Your task to perform on an android device: remove spam from my inbox in the gmail app Image 0: 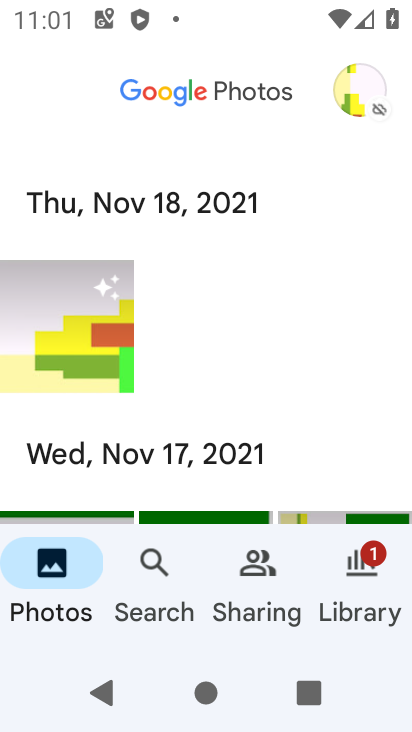
Step 0: press home button
Your task to perform on an android device: remove spam from my inbox in the gmail app Image 1: 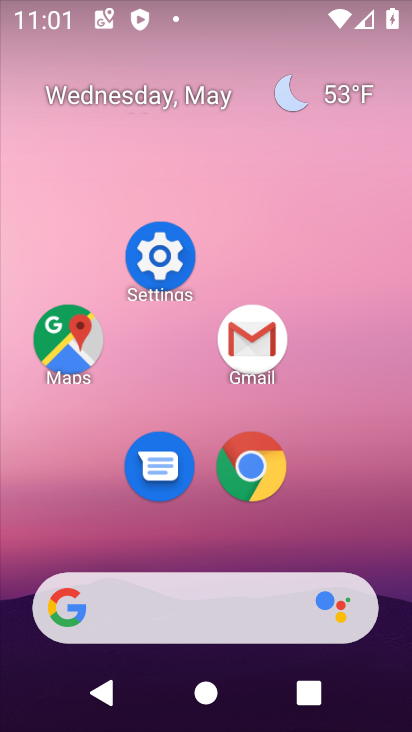
Step 1: drag from (219, 550) to (282, 272)
Your task to perform on an android device: remove spam from my inbox in the gmail app Image 2: 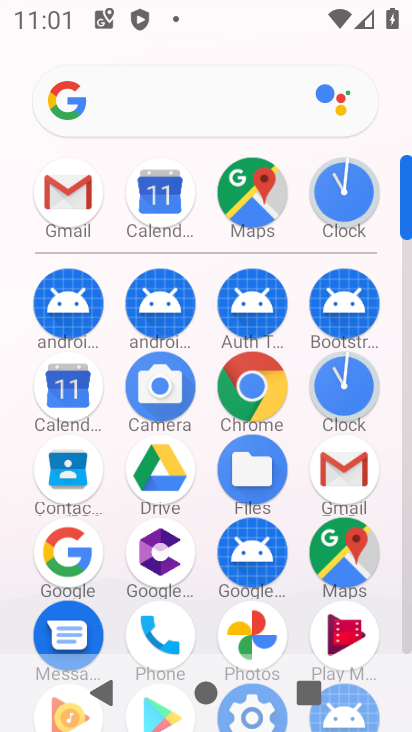
Step 2: click (340, 484)
Your task to perform on an android device: remove spam from my inbox in the gmail app Image 3: 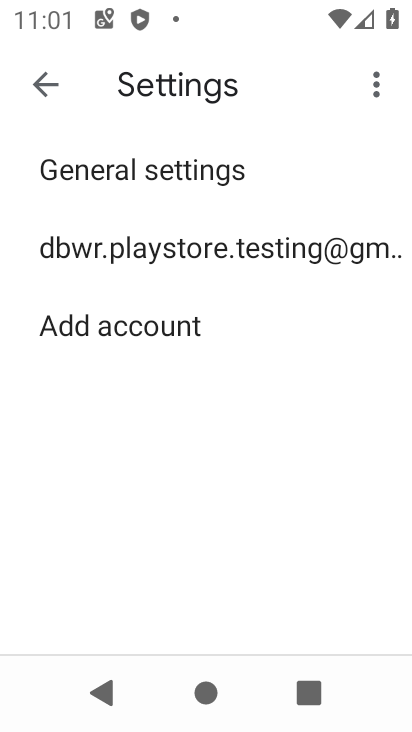
Step 3: click (47, 92)
Your task to perform on an android device: remove spam from my inbox in the gmail app Image 4: 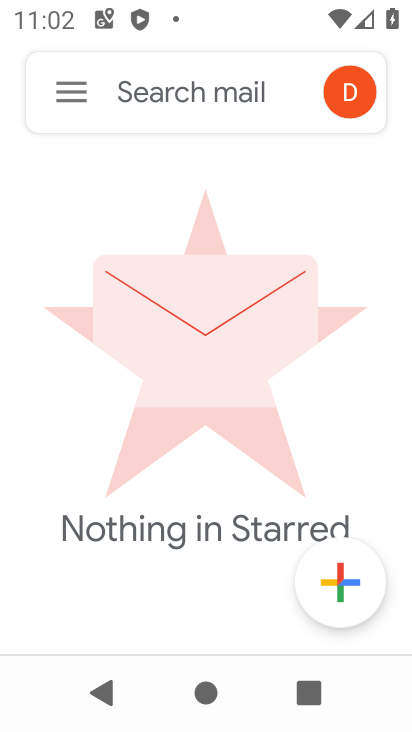
Step 4: click (79, 105)
Your task to perform on an android device: remove spam from my inbox in the gmail app Image 5: 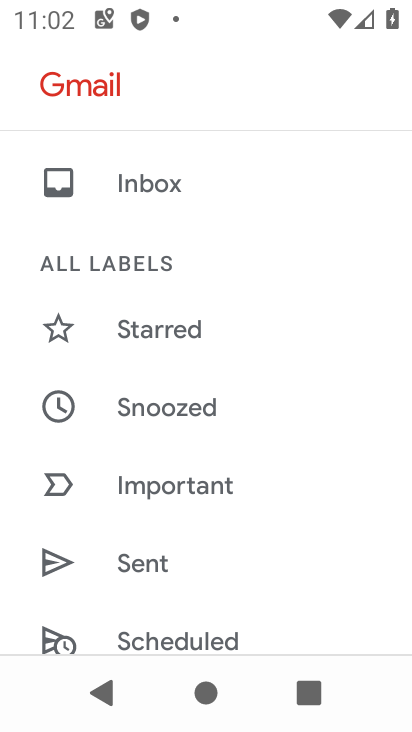
Step 5: drag from (209, 567) to (258, 153)
Your task to perform on an android device: remove spam from my inbox in the gmail app Image 6: 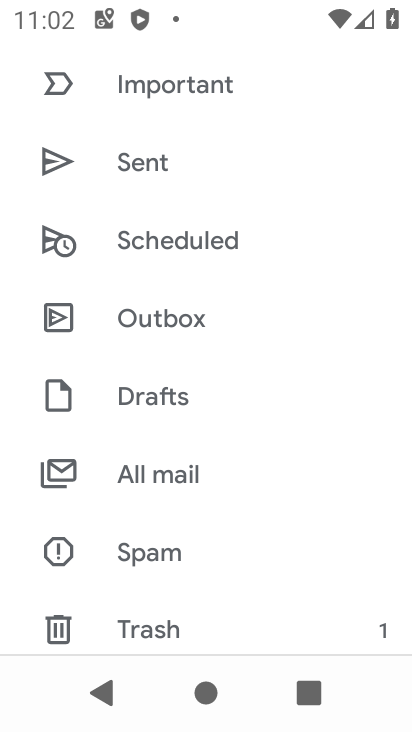
Step 6: click (155, 555)
Your task to perform on an android device: remove spam from my inbox in the gmail app Image 7: 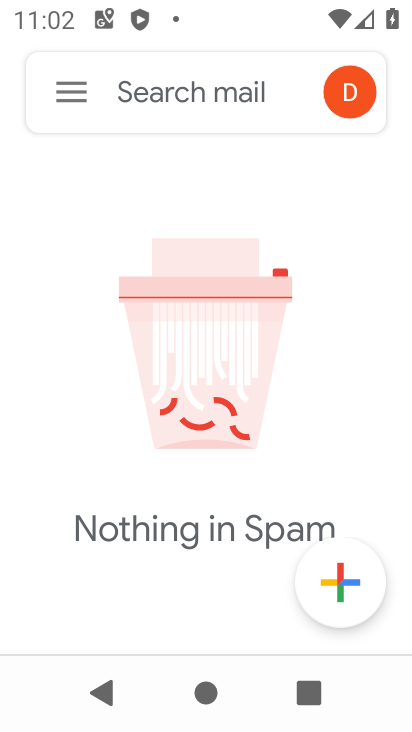
Step 7: task complete